Your task to perform on an android device: Open Reddit.com Image 0: 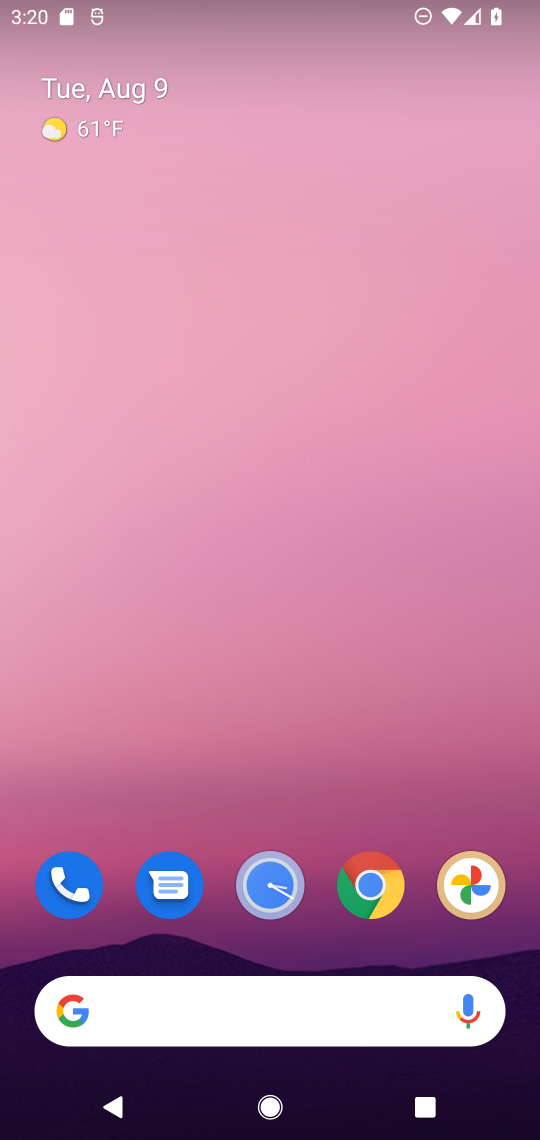
Step 0: click (271, 1012)
Your task to perform on an android device: Open Reddit.com Image 1: 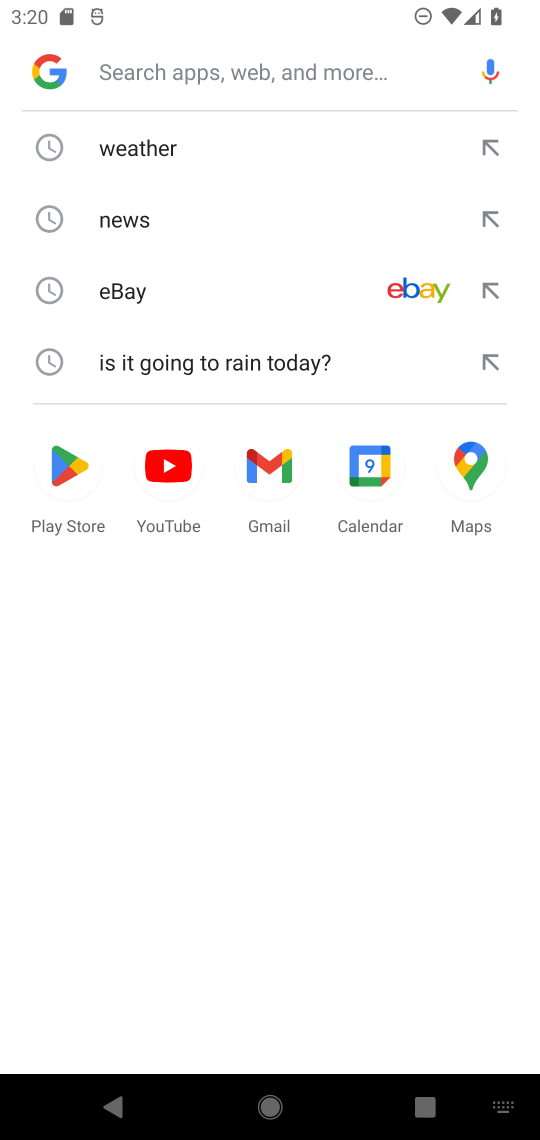
Step 1: type "Reddit.com"
Your task to perform on an android device: Open Reddit.com Image 2: 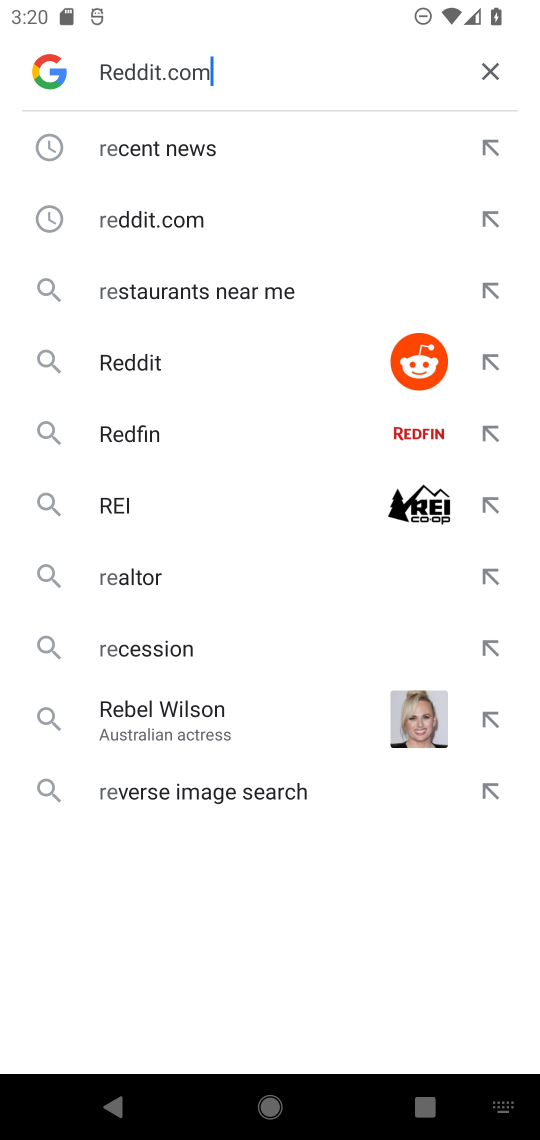
Step 2: type ""
Your task to perform on an android device: Open Reddit.com Image 3: 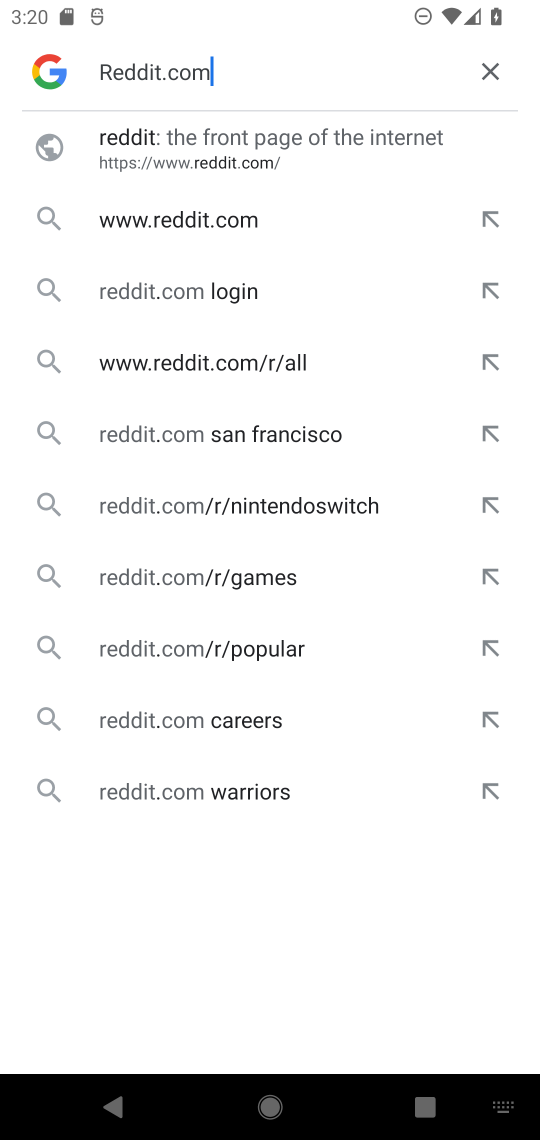
Step 3: press enter
Your task to perform on an android device: Open Reddit.com Image 4: 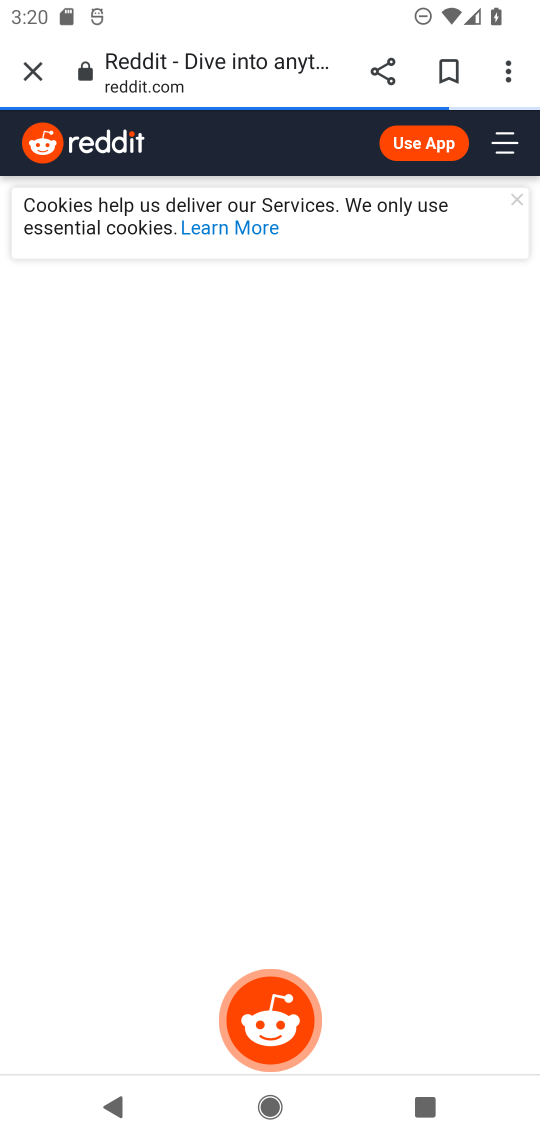
Step 4: task complete